Your task to perform on an android device: Open settings on Google Maps Image 0: 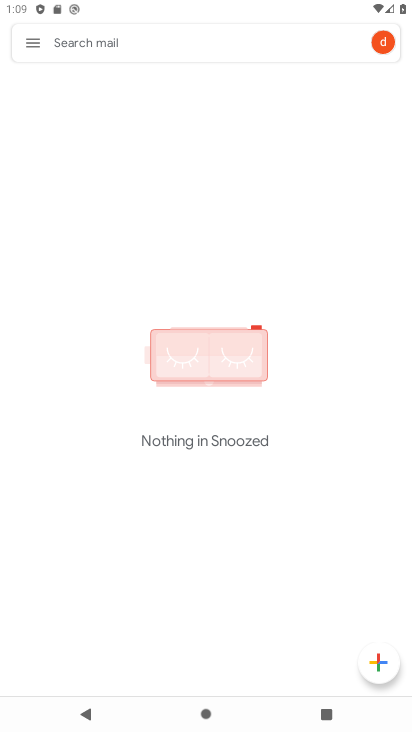
Step 0: press home button
Your task to perform on an android device: Open settings on Google Maps Image 1: 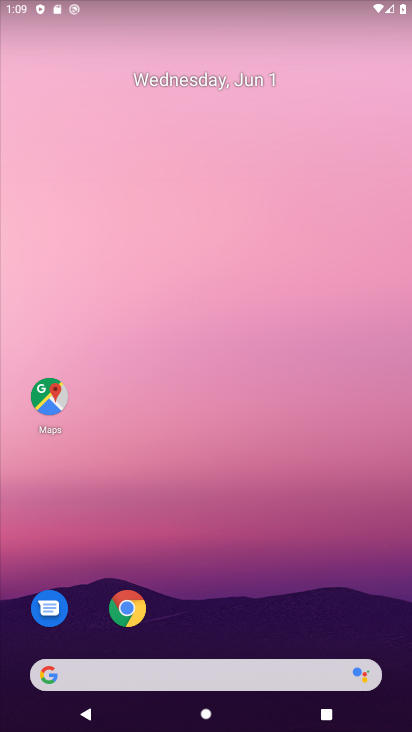
Step 1: click (53, 410)
Your task to perform on an android device: Open settings on Google Maps Image 2: 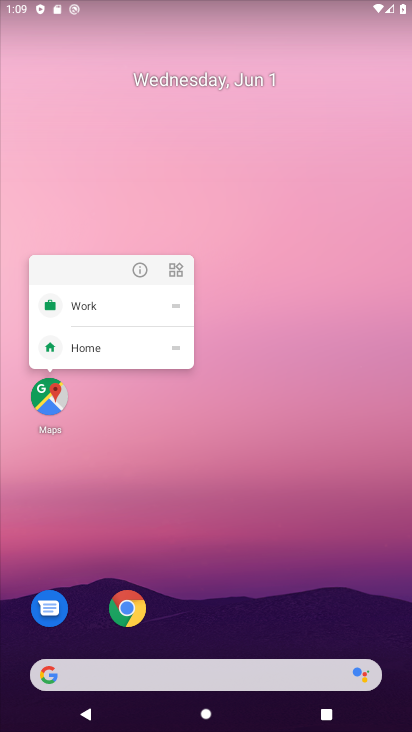
Step 2: click (47, 402)
Your task to perform on an android device: Open settings on Google Maps Image 3: 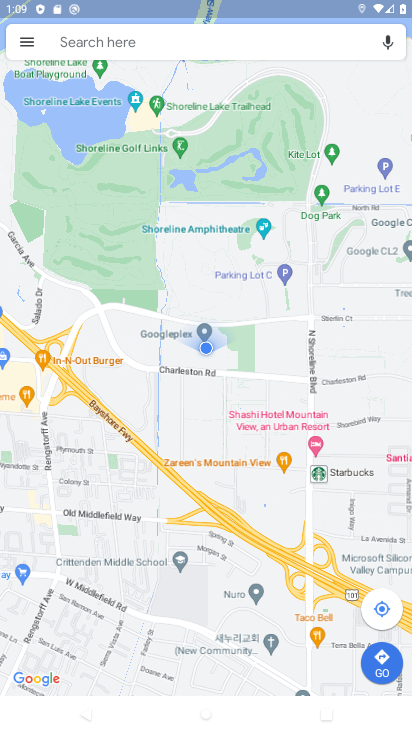
Step 3: click (28, 47)
Your task to perform on an android device: Open settings on Google Maps Image 4: 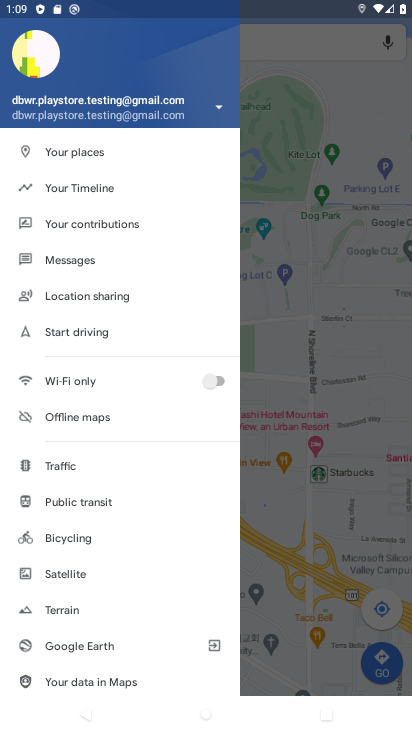
Step 4: drag from (107, 671) to (99, 398)
Your task to perform on an android device: Open settings on Google Maps Image 5: 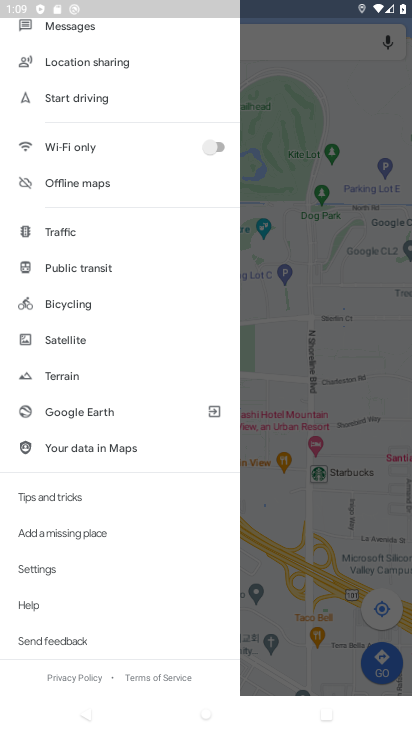
Step 5: click (24, 572)
Your task to perform on an android device: Open settings on Google Maps Image 6: 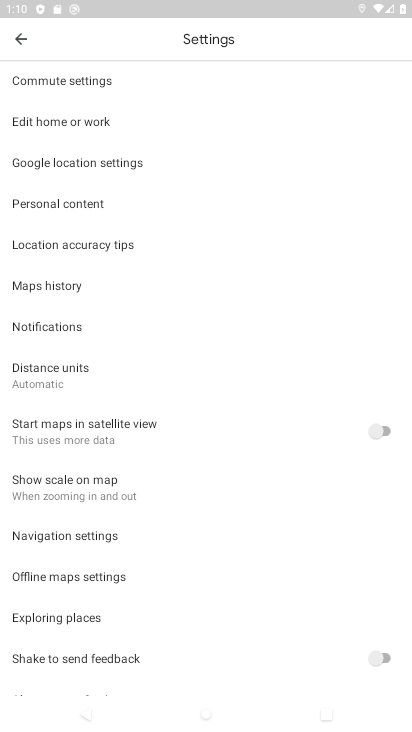
Step 6: task complete